Your task to perform on an android device: Open calendar and show me the fourth week of next month Image 0: 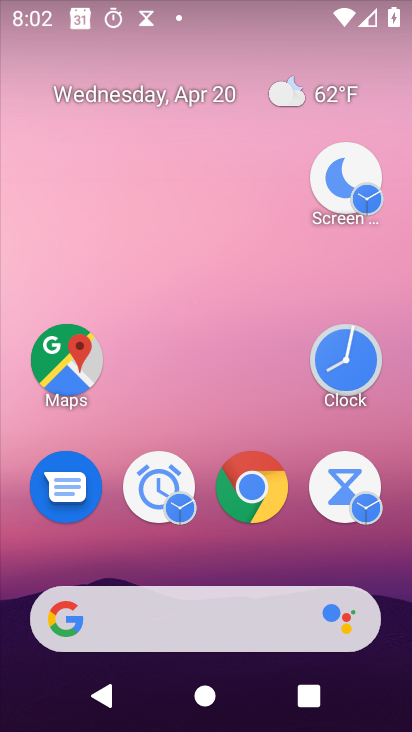
Step 0: drag from (210, 458) to (99, 45)
Your task to perform on an android device: Open calendar and show me the fourth week of next month Image 1: 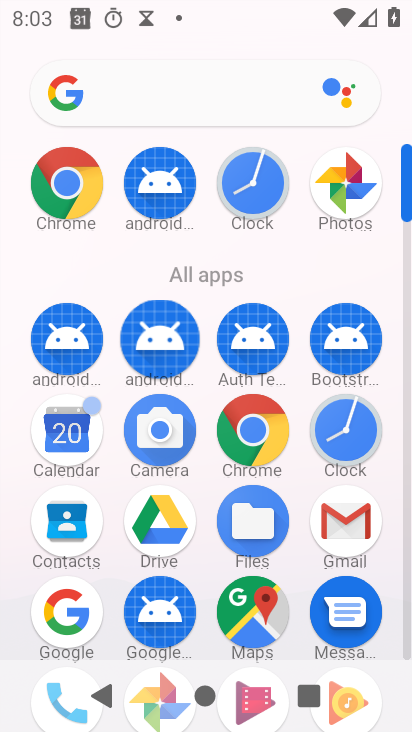
Step 1: click (64, 439)
Your task to perform on an android device: Open calendar and show me the fourth week of next month Image 2: 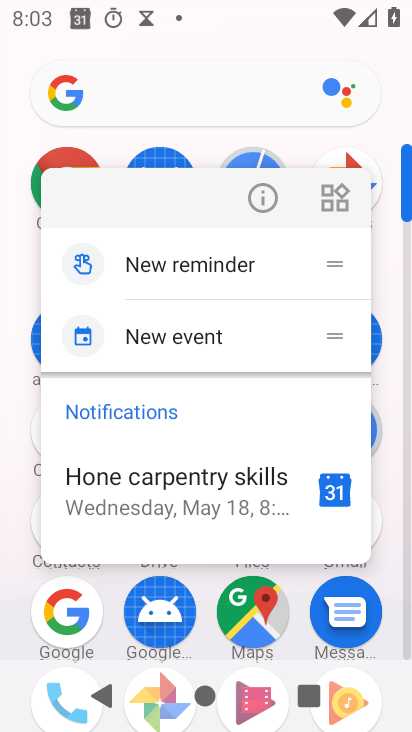
Step 2: click (406, 270)
Your task to perform on an android device: Open calendar and show me the fourth week of next month Image 3: 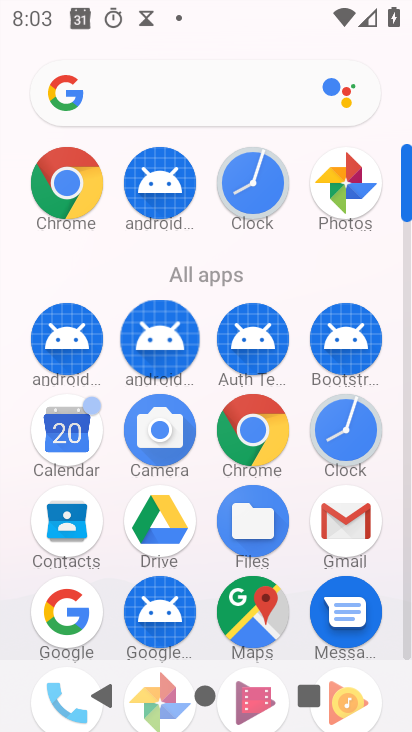
Step 3: click (75, 437)
Your task to perform on an android device: Open calendar and show me the fourth week of next month Image 4: 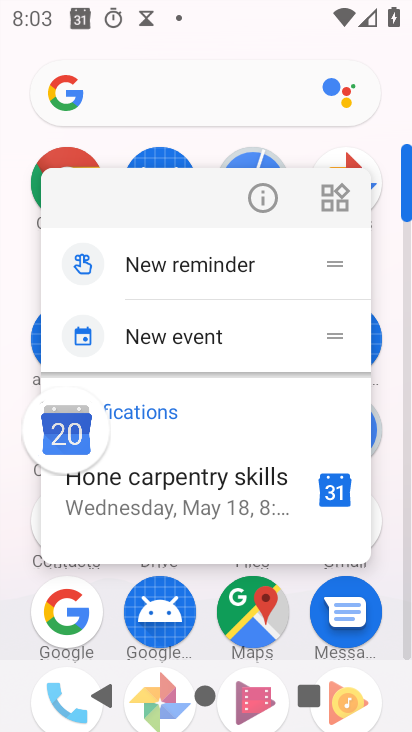
Step 4: click (57, 432)
Your task to perform on an android device: Open calendar and show me the fourth week of next month Image 5: 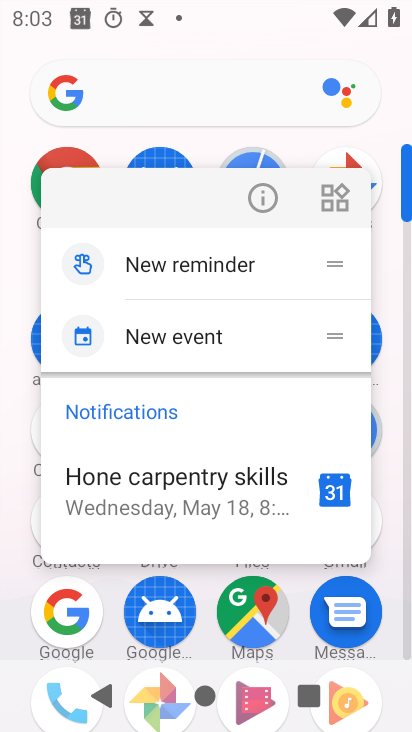
Step 5: click (12, 413)
Your task to perform on an android device: Open calendar and show me the fourth week of next month Image 6: 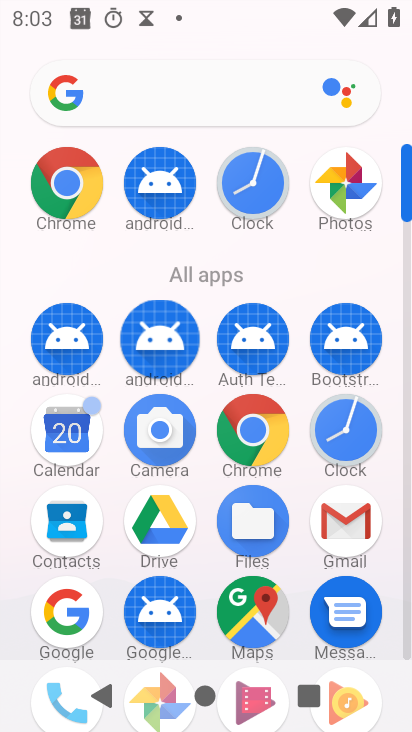
Step 6: click (57, 444)
Your task to perform on an android device: Open calendar and show me the fourth week of next month Image 7: 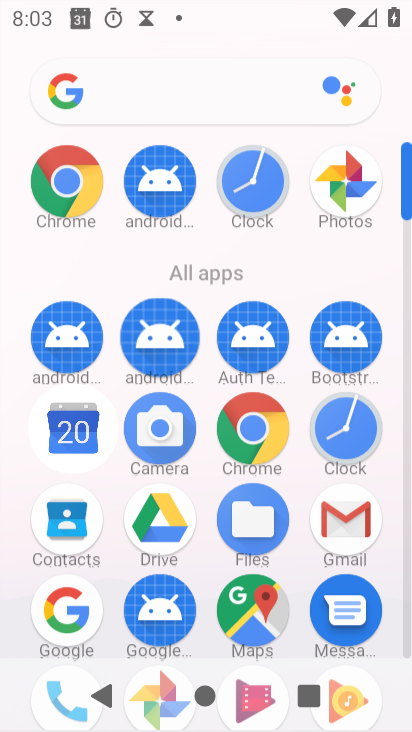
Step 7: click (57, 444)
Your task to perform on an android device: Open calendar and show me the fourth week of next month Image 8: 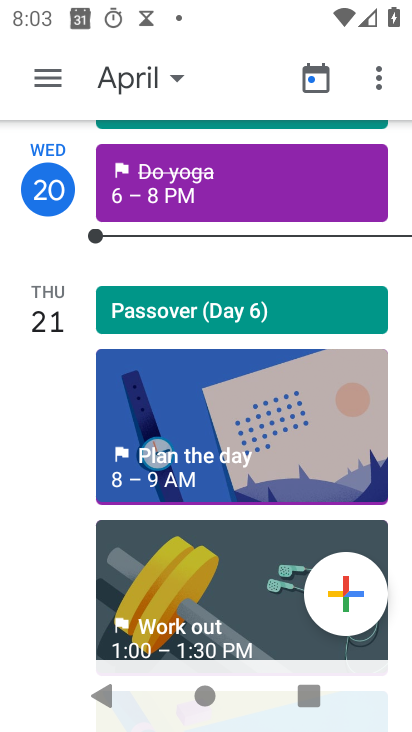
Step 8: click (170, 76)
Your task to perform on an android device: Open calendar and show me the fourth week of next month Image 9: 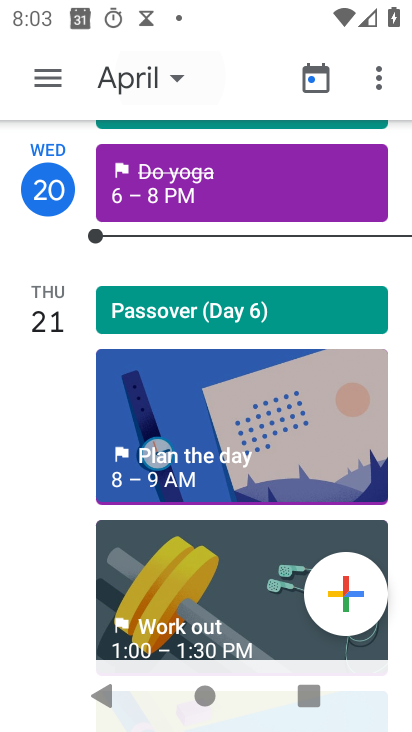
Step 9: click (170, 76)
Your task to perform on an android device: Open calendar and show me the fourth week of next month Image 10: 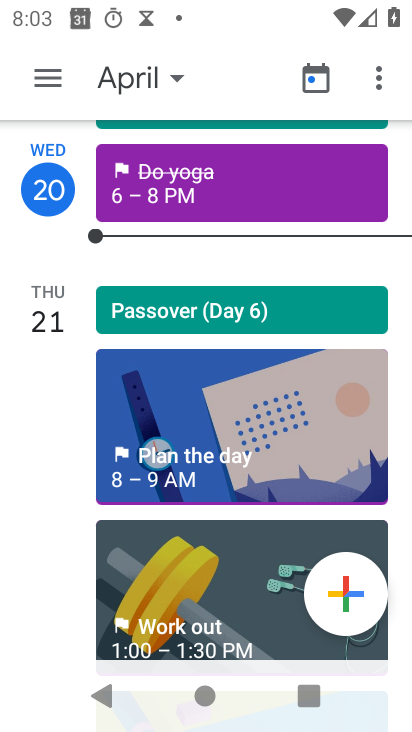
Step 10: click (170, 77)
Your task to perform on an android device: Open calendar and show me the fourth week of next month Image 11: 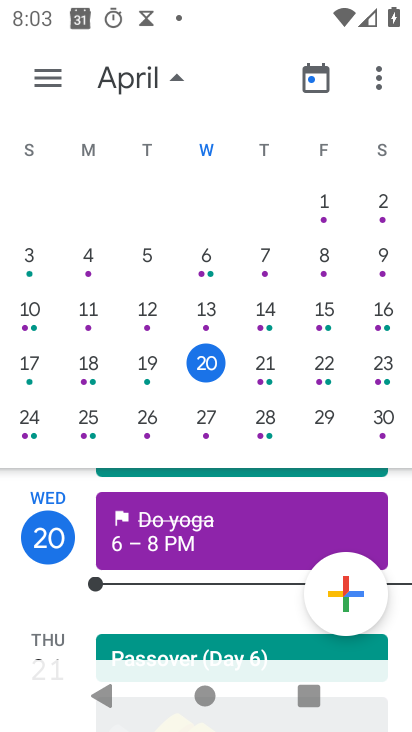
Step 11: drag from (214, 384) to (24, 329)
Your task to perform on an android device: Open calendar and show me the fourth week of next month Image 12: 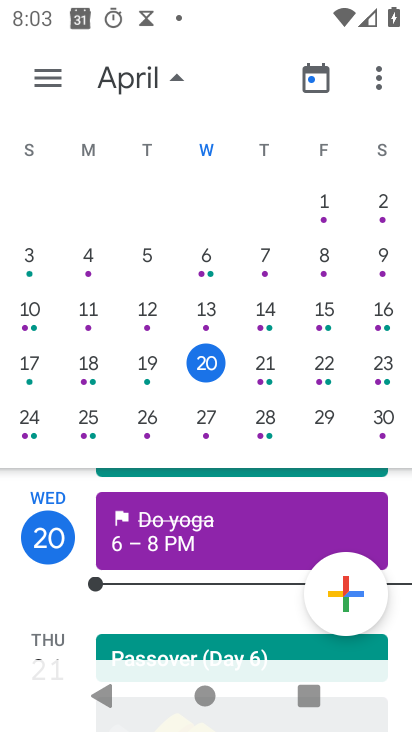
Step 12: drag from (303, 371) to (3, 341)
Your task to perform on an android device: Open calendar and show me the fourth week of next month Image 13: 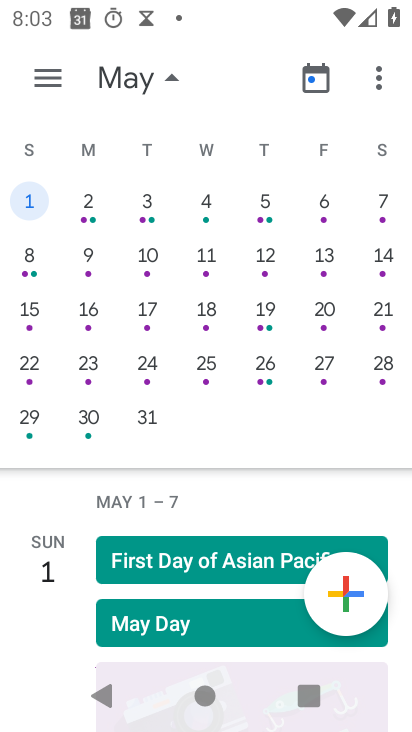
Step 13: drag from (292, 367) to (15, 301)
Your task to perform on an android device: Open calendar and show me the fourth week of next month Image 14: 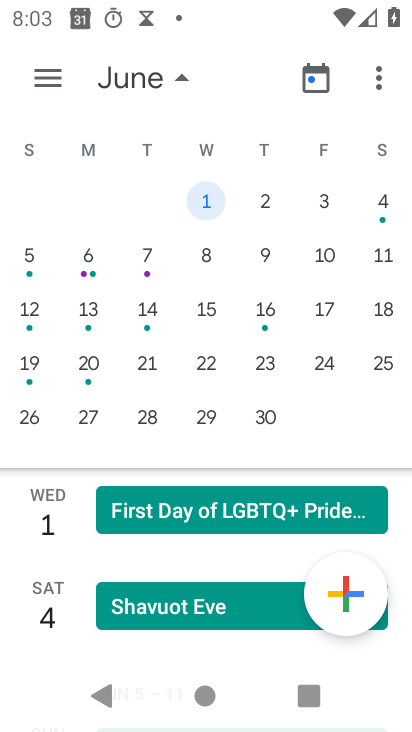
Step 14: drag from (50, 307) to (394, 355)
Your task to perform on an android device: Open calendar and show me the fourth week of next month Image 15: 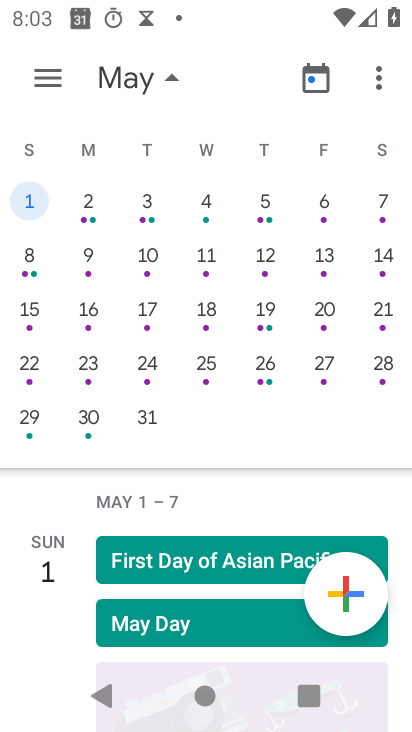
Step 15: click (90, 364)
Your task to perform on an android device: Open calendar and show me the fourth week of next month Image 16: 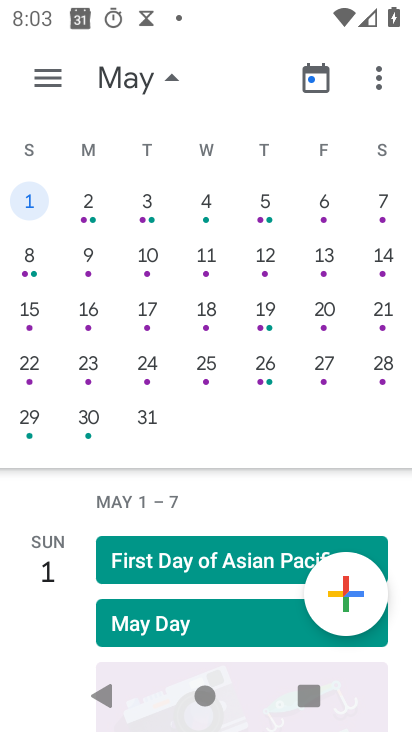
Step 16: click (90, 364)
Your task to perform on an android device: Open calendar and show me the fourth week of next month Image 17: 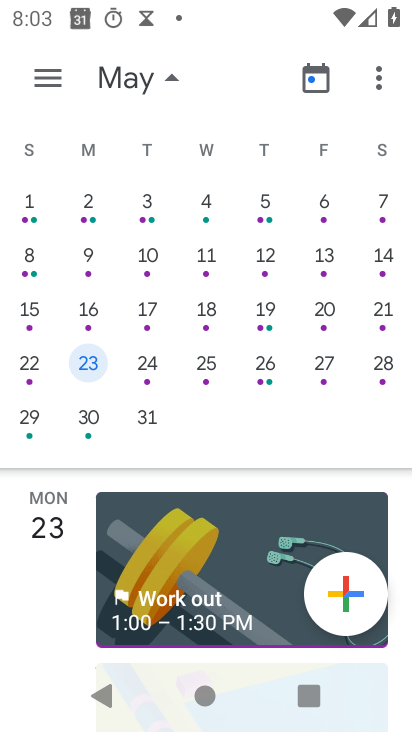
Step 17: click (90, 364)
Your task to perform on an android device: Open calendar and show me the fourth week of next month Image 18: 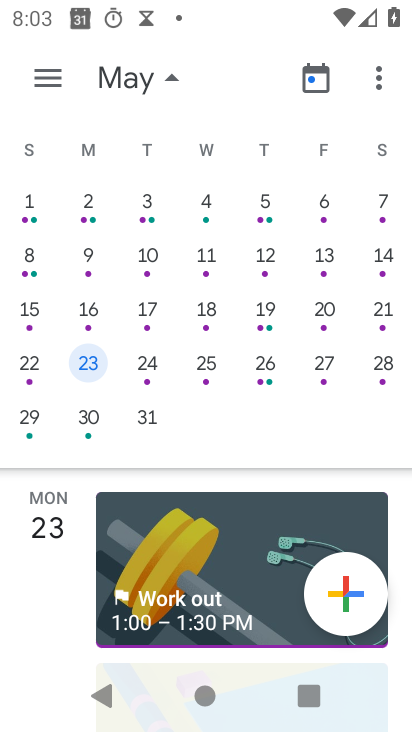
Step 18: click (90, 364)
Your task to perform on an android device: Open calendar and show me the fourth week of next month Image 19: 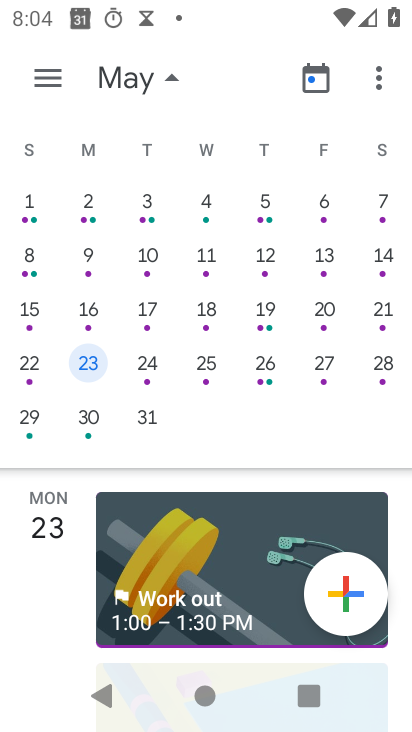
Step 19: task complete